Your task to perform on an android device: Go to sound settings Image 0: 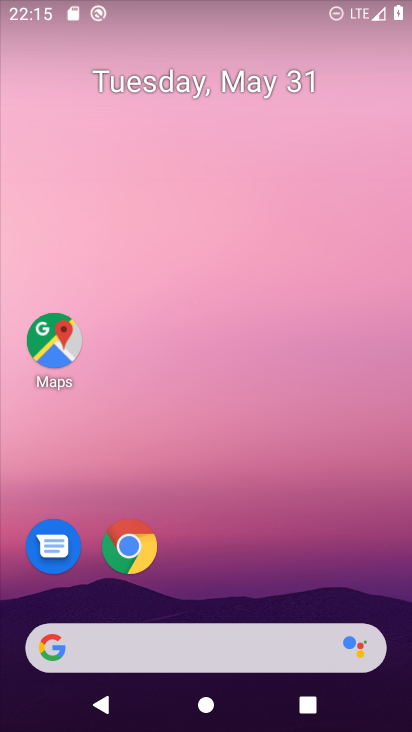
Step 0: drag from (389, 699) to (325, 106)
Your task to perform on an android device: Go to sound settings Image 1: 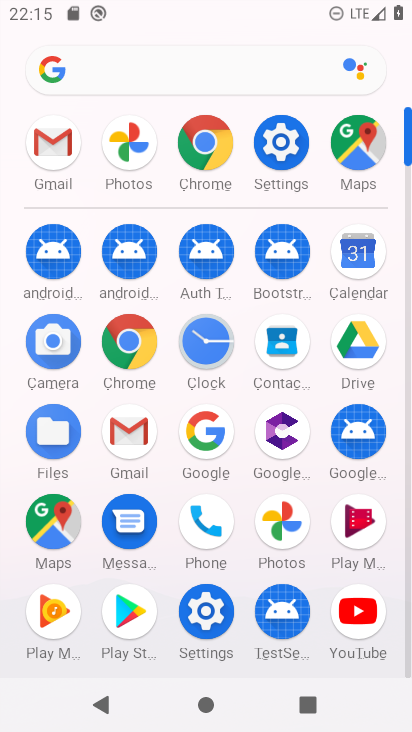
Step 1: click (283, 145)
Your task to perform on an android device: Go to sound settings Image 2: 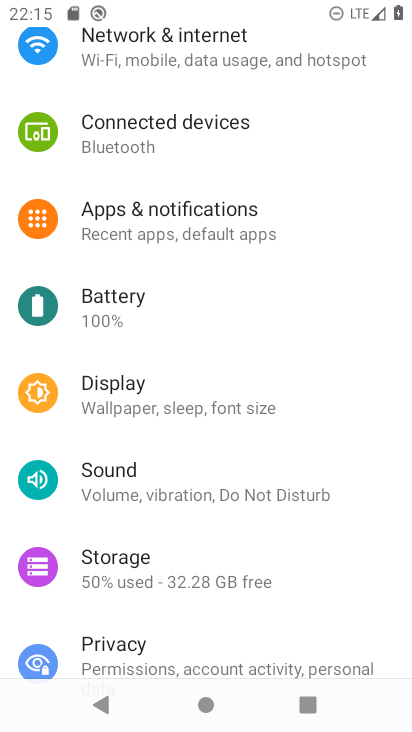
Step 2: click (104, 485)
Your task to perform on an android device: Go to sound settings Image 3: 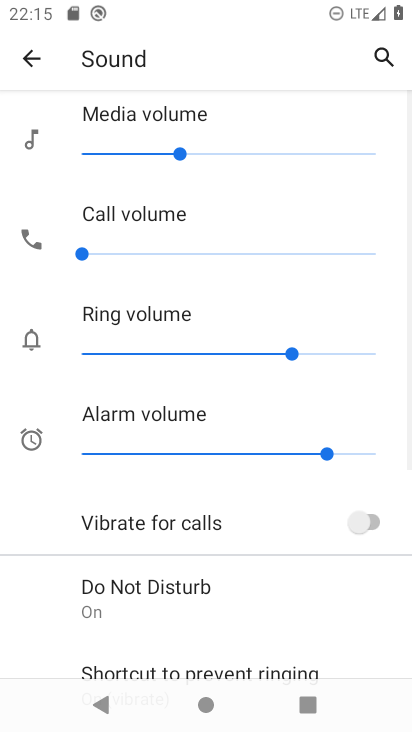
Step 3: task complete